Your task to perform on an android device: open device folders in google photos Image 0: 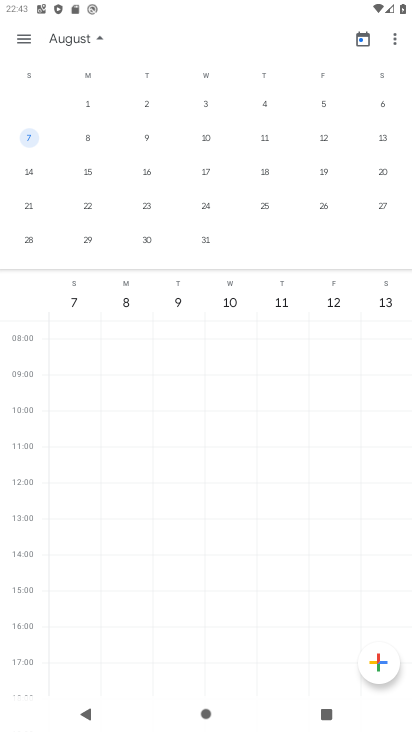
Step 0: press home button
Your task to perform on an android device: open device folders in google photos Image 1: 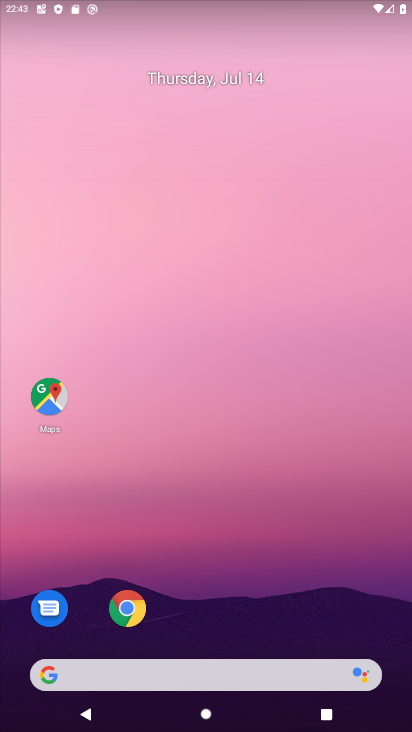
Step 1: drag from (199, 579) to (171, 64)
Your task to perform on an android device: open device folders in google photos Image 2: 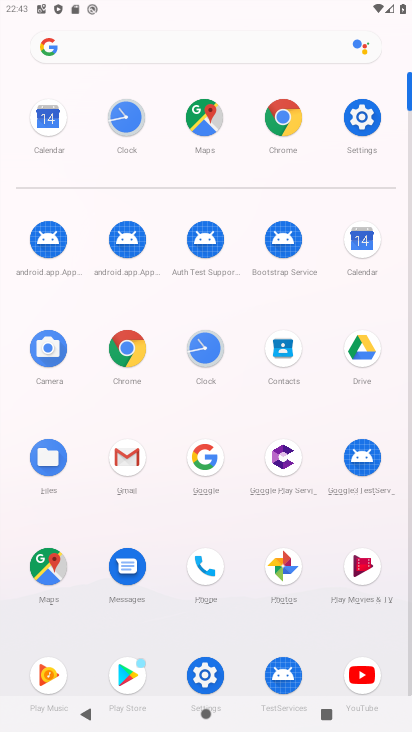
Step 2: click (282, 565)
Your task to perform on an android device: open device folders in google photos Image 3: 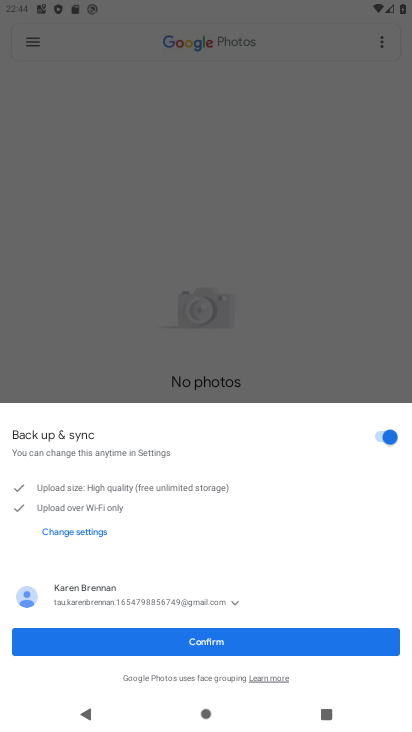
Step 3: click (195, 640)
Your task to perform on an android device: open device folders in google photos Image 4: 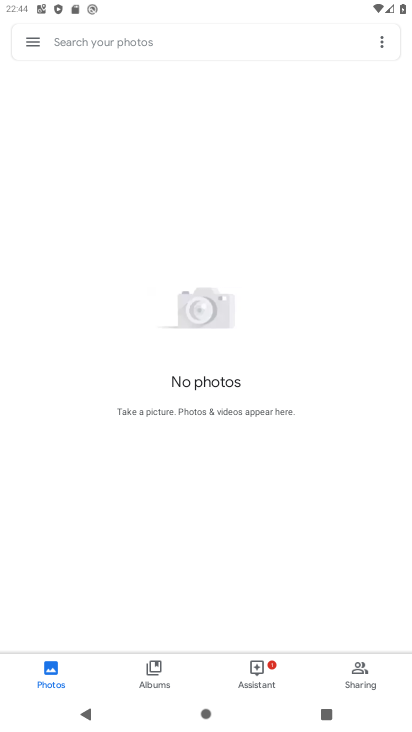
Step 4: click (28, 40)
Your task to perform on an android device: open device folders in google photos Image 5: 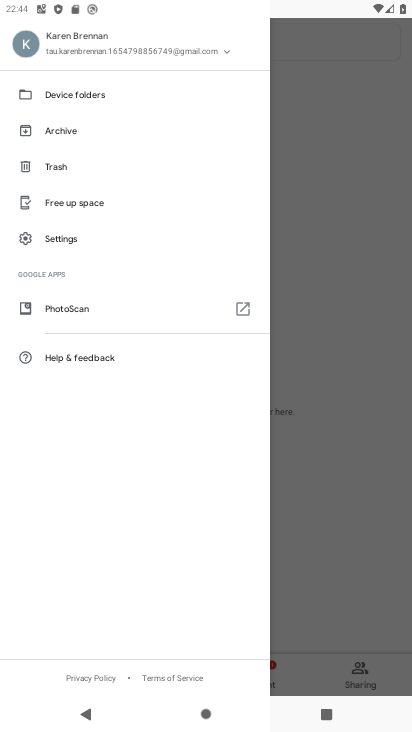
Step 5: click (63, 94)
Your task to perform on an android device: open device folders in google photos Image 6: 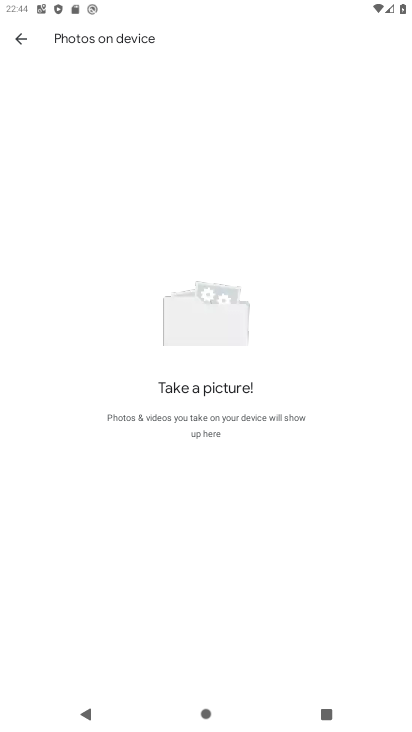
Step 6: task complete